Your task to perform on an android device: turn on location history Image 0: 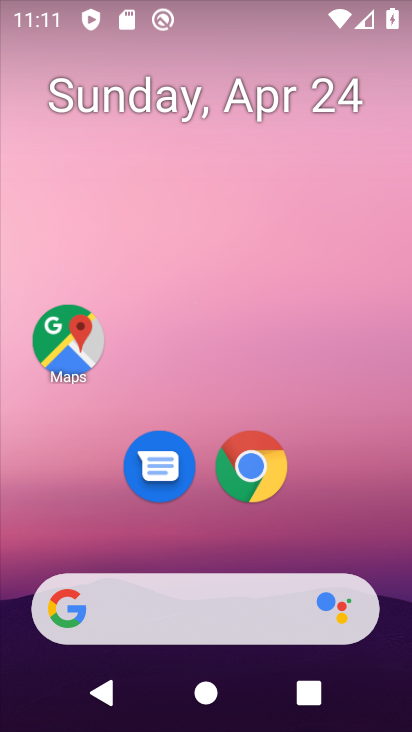
Step 0: drag from (325, 464) to (241, 0)
Your task to perform on an android device: turn on location history Image 1: 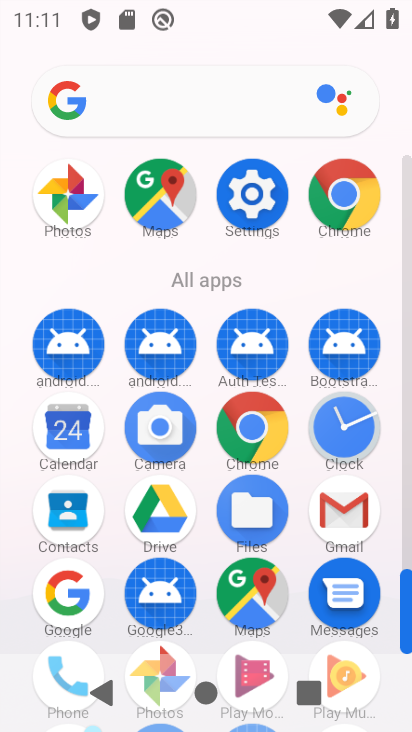
Step 1: click (243, 213)
Your task to perform on an android device: turn on location history Image 2: 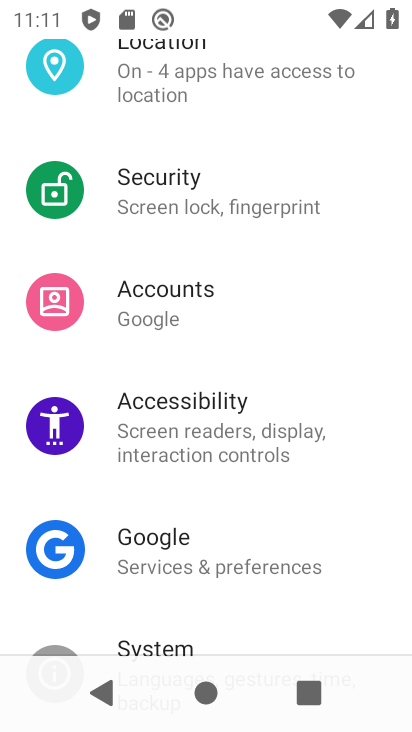
Step 2: drag from (295, 557) to (229, 102)
Your task to perform on an android device: turn on location history Image 3: 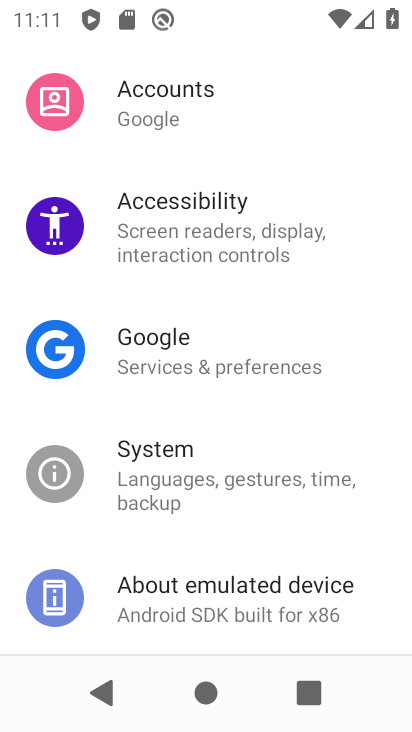
Step 3: drag from (221, 598) to (147, 217)
Your task to perform on an android device: turn on location history Image 4: 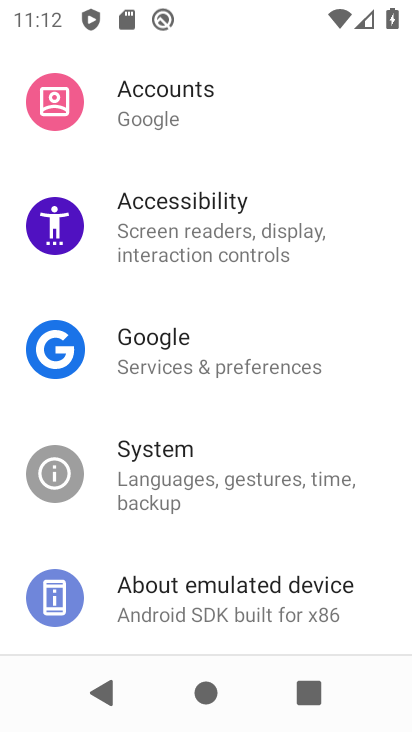
Step 4: click (192, 565)
Your task to perform on an android device: turn on location history Image 5: 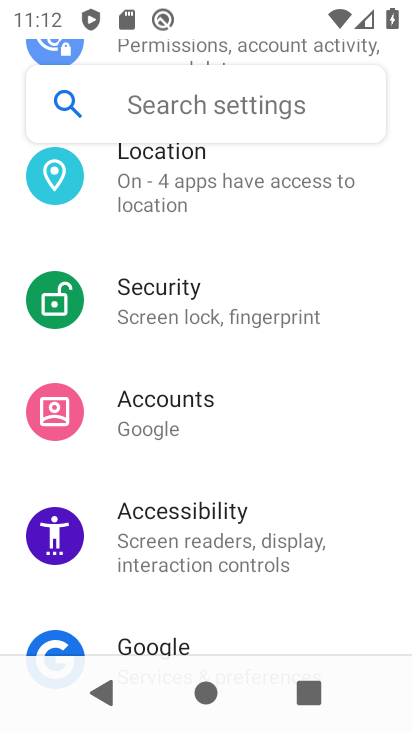
Step 5: click (163, 180)
Your task to perform on an android device: turn on location history Image 6: 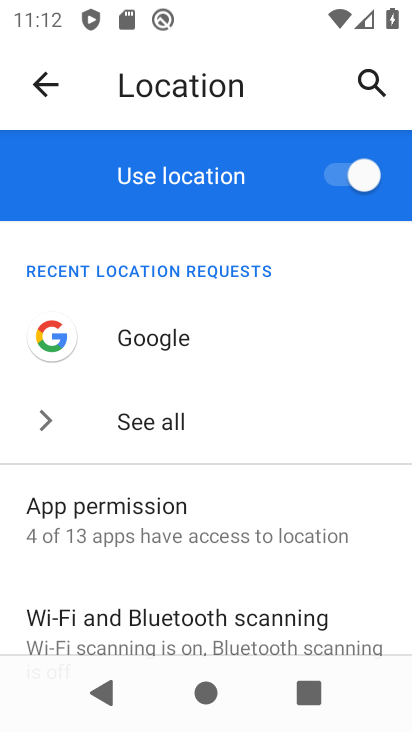
Step 6: drag from (149, 578) to (114, 218)
Your task to perform on an android device: turn on location history Image 7: 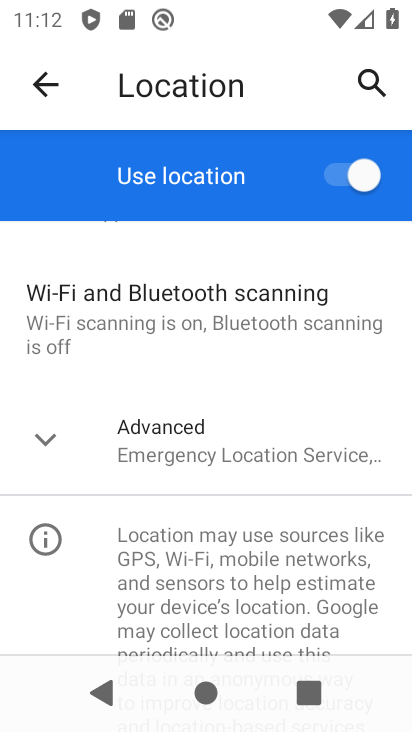
Step 7: click (134, 468)
Your task to perform on an android device: turn on location history Image 8: 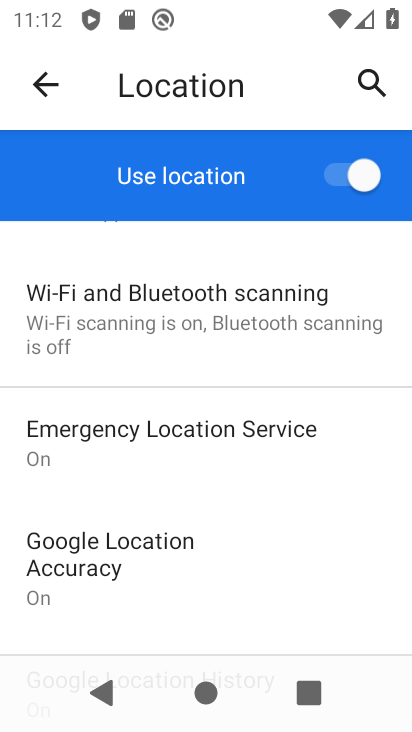
Step 8: drag from (176, 542) to (173, 133)
Your task to perform on an android device: turn on location history Image 9: 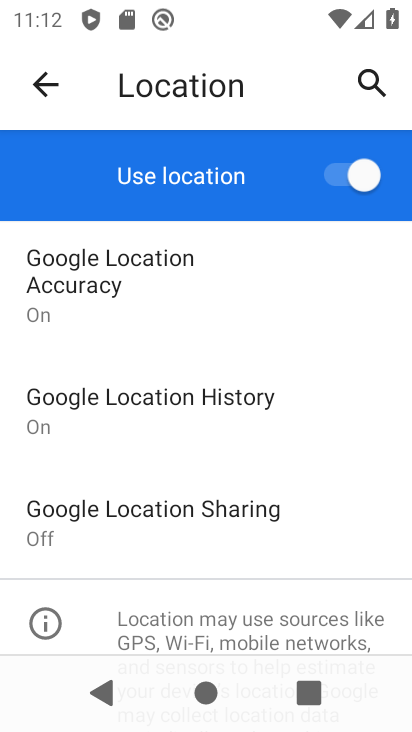
Step 9: click (224, 399)
Your task to perform on an android device: turn on location history Image 10: 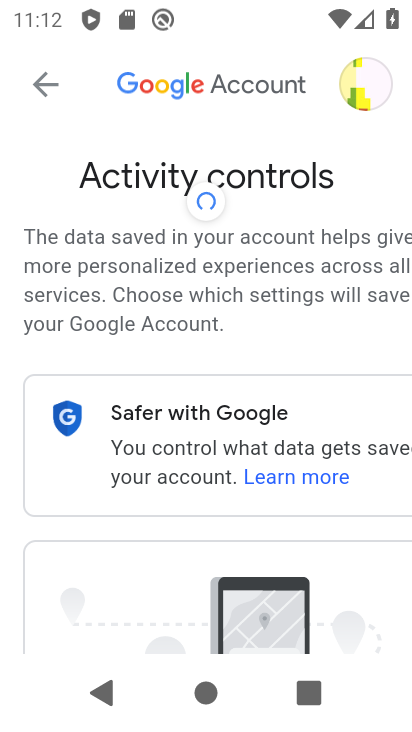
Step 10: drag from (261, 453) to (229, 54)
Your task to perform on an android device: turn on location history Image 11: 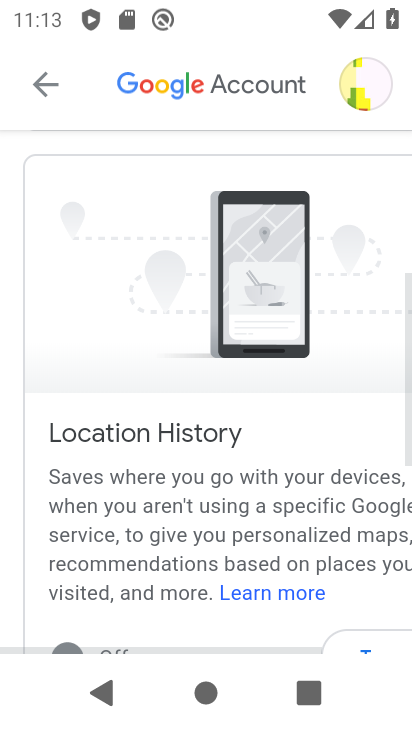
Step 11: drag from (257, 554) to (202, 96)
Your task to perform on an android device: turn on location history Image 12: 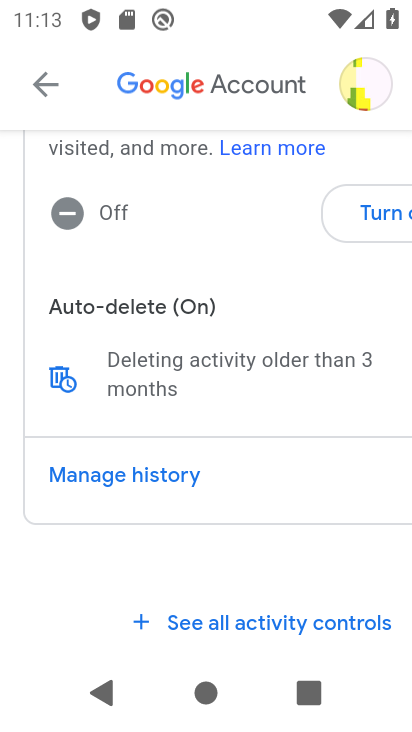
Step 12: click (368, 211)
Your task to perform on an android device: turn on location history Image 13: 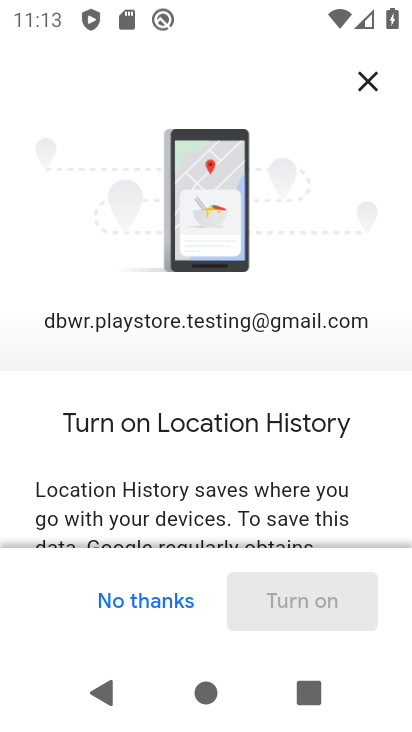
Step 13: drag from (314, 515) to (337, 72)
Your task to perform on an android device: turn on location history Image 14: 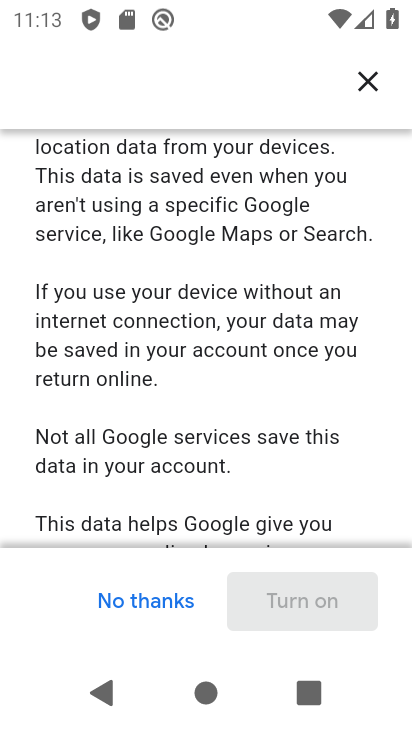
Step 14: drag from (359, 462) to (294, 91)
Your task to perform on an android device: turn on location history Image 15: 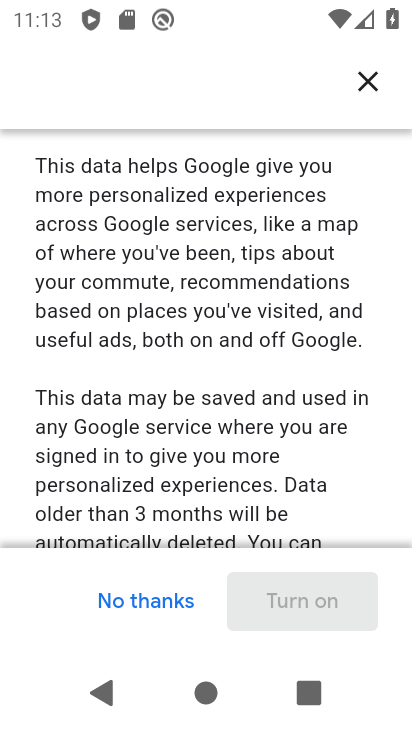
Step 15: drag from (340, 541) to (309, 101)
Your task to perform on an android device: turn on location history Image 16: 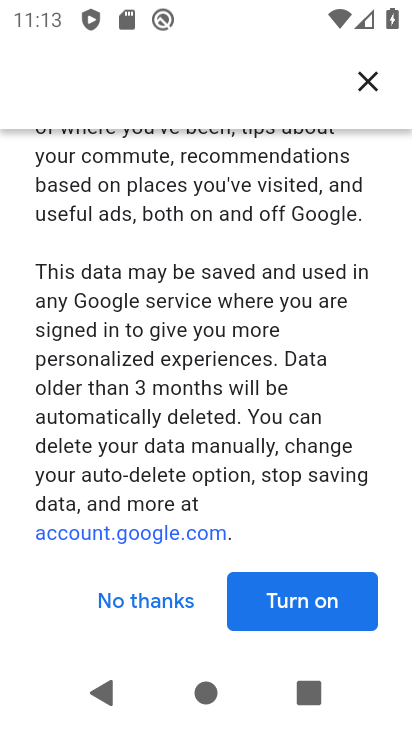
Step 16: click (321, 612)
Your task to perform on an android device: turn on location history Image 17: 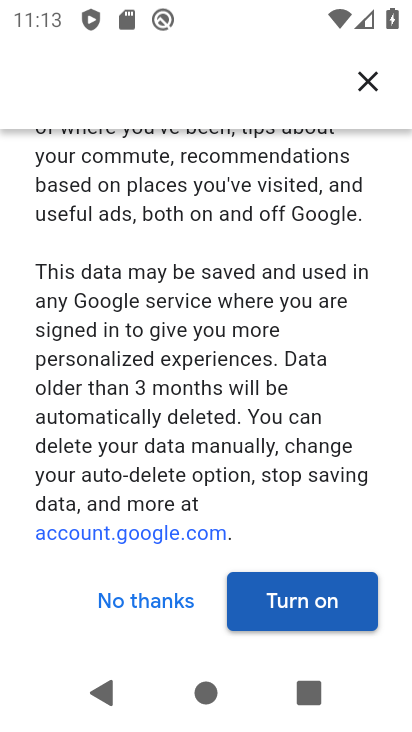
Step 17: click (299, 591)
Your task to perform on an android device: turn on location history Image 18: 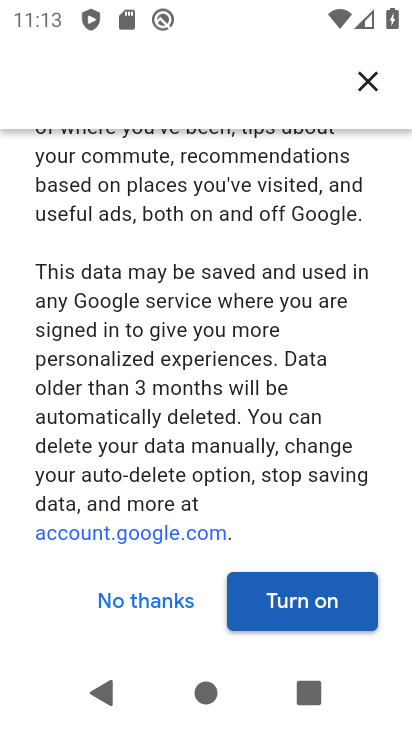
Step 18: click (331, 611)
Your task to perform on an android device: turn on location history Image 19: 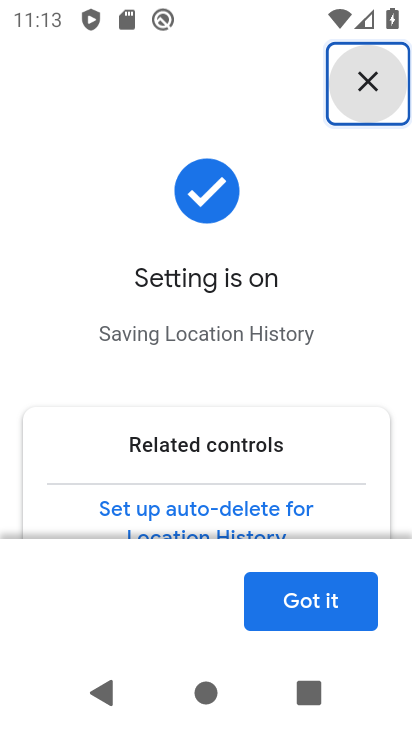
Step 19: click (338, 586)
Your task to perform on an android device: turn on location history Image 20: 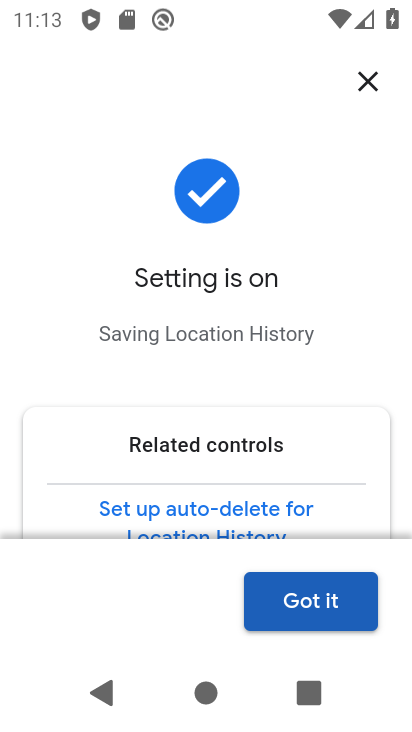
Step 20: task complete